Your task to perform on an android device: Open location settings Image 0: 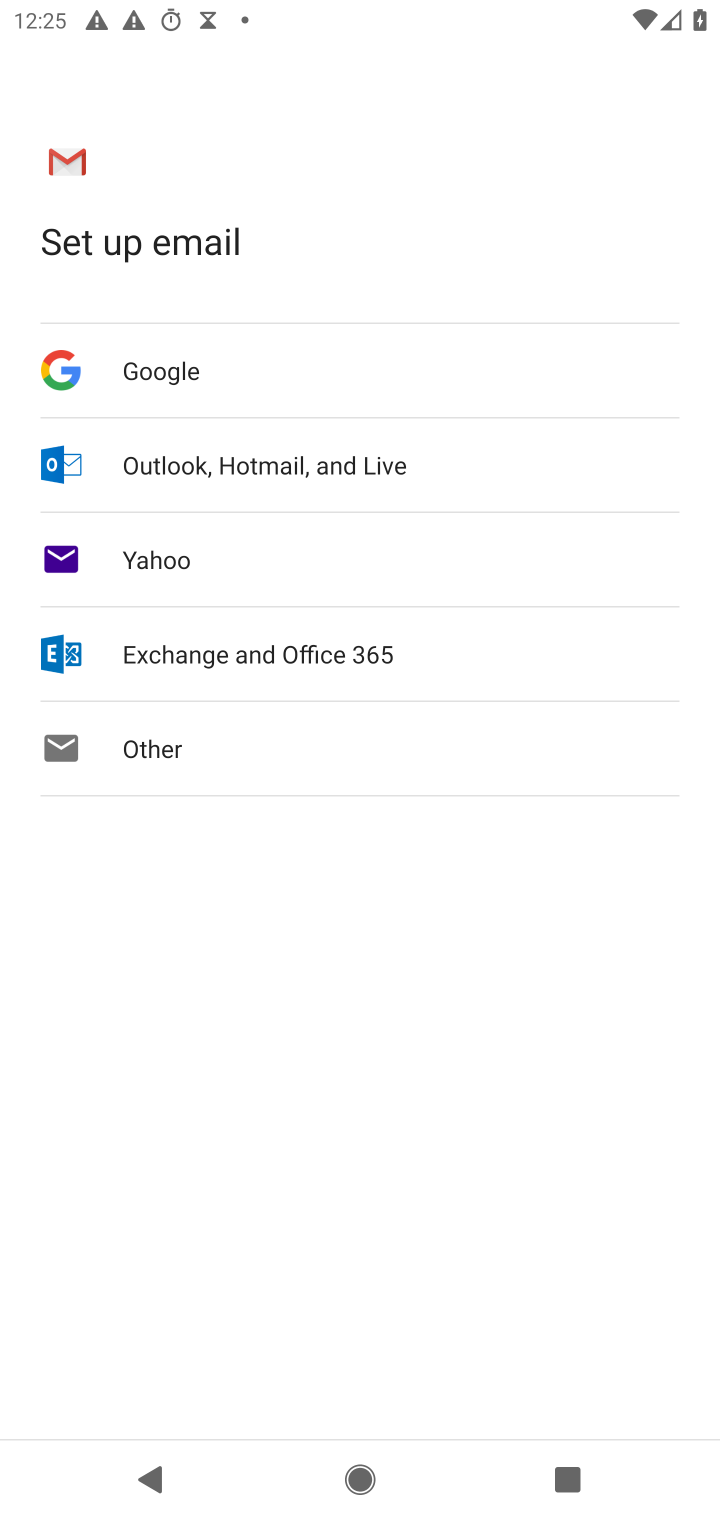
Step 0: press home button
Your task to perform on an android device: Open location settings Image 1: 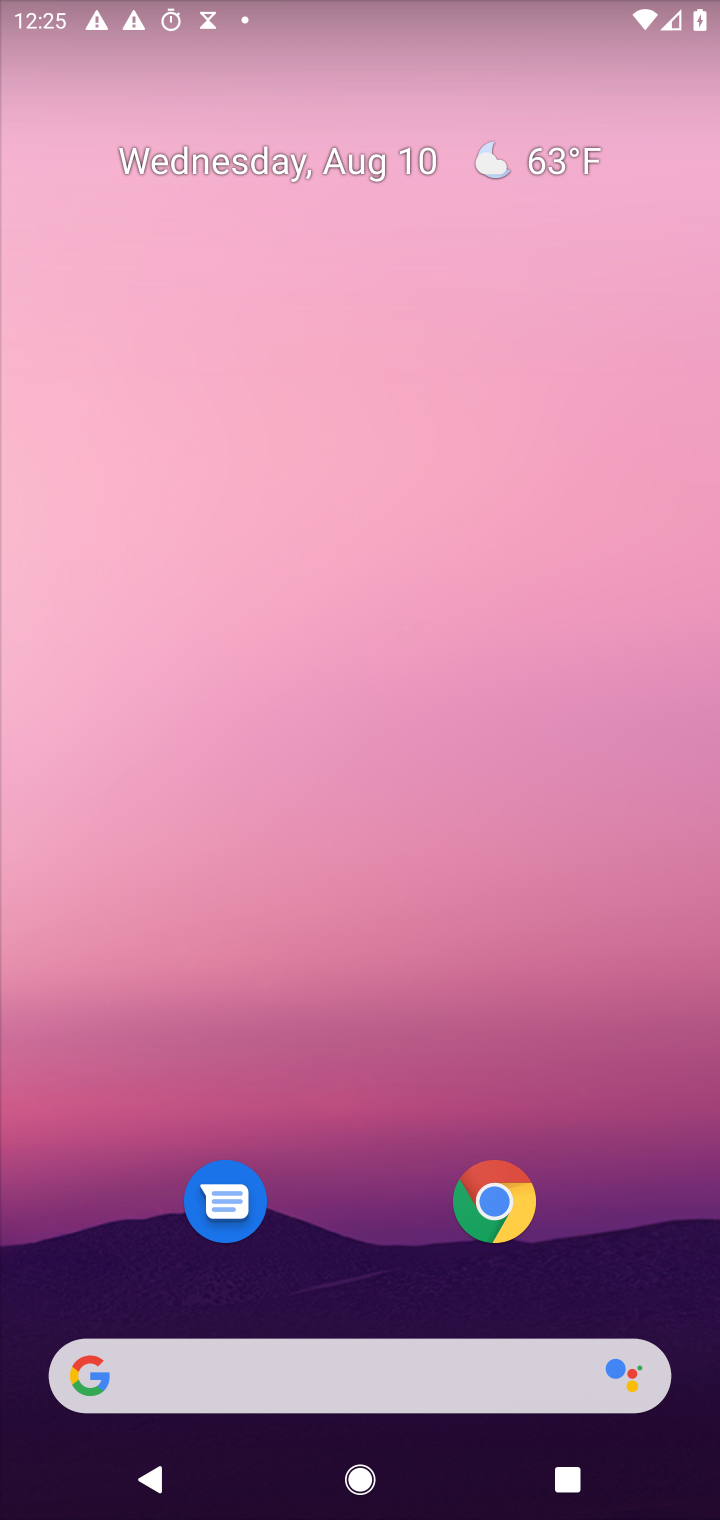
Step 1: drag from (367, 815) to (348, 209)
Your task to perform on an android device: Open location settings Image 2: 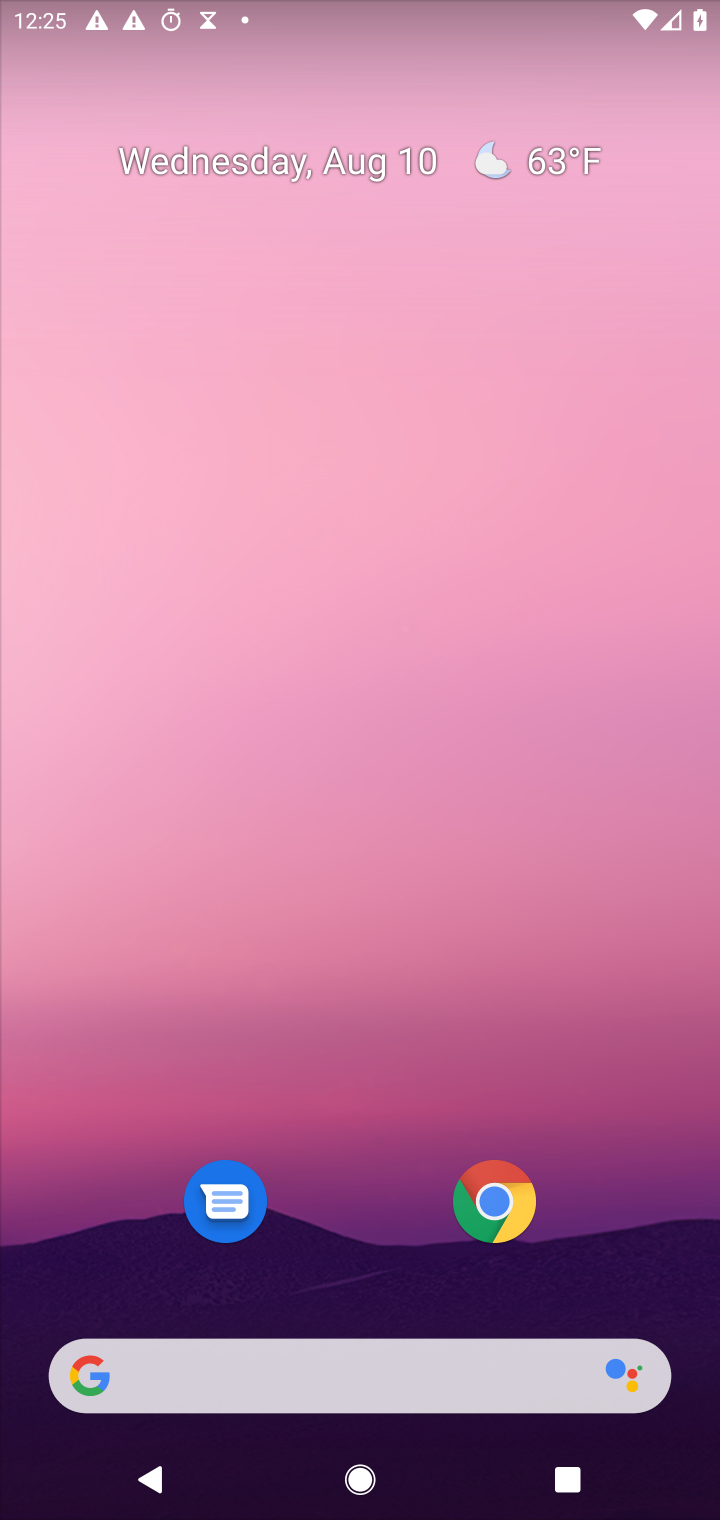
Step 2: drag from (362, 1276) to (354, 19)
Your task to perform on an android device: Open location settings Image 3: 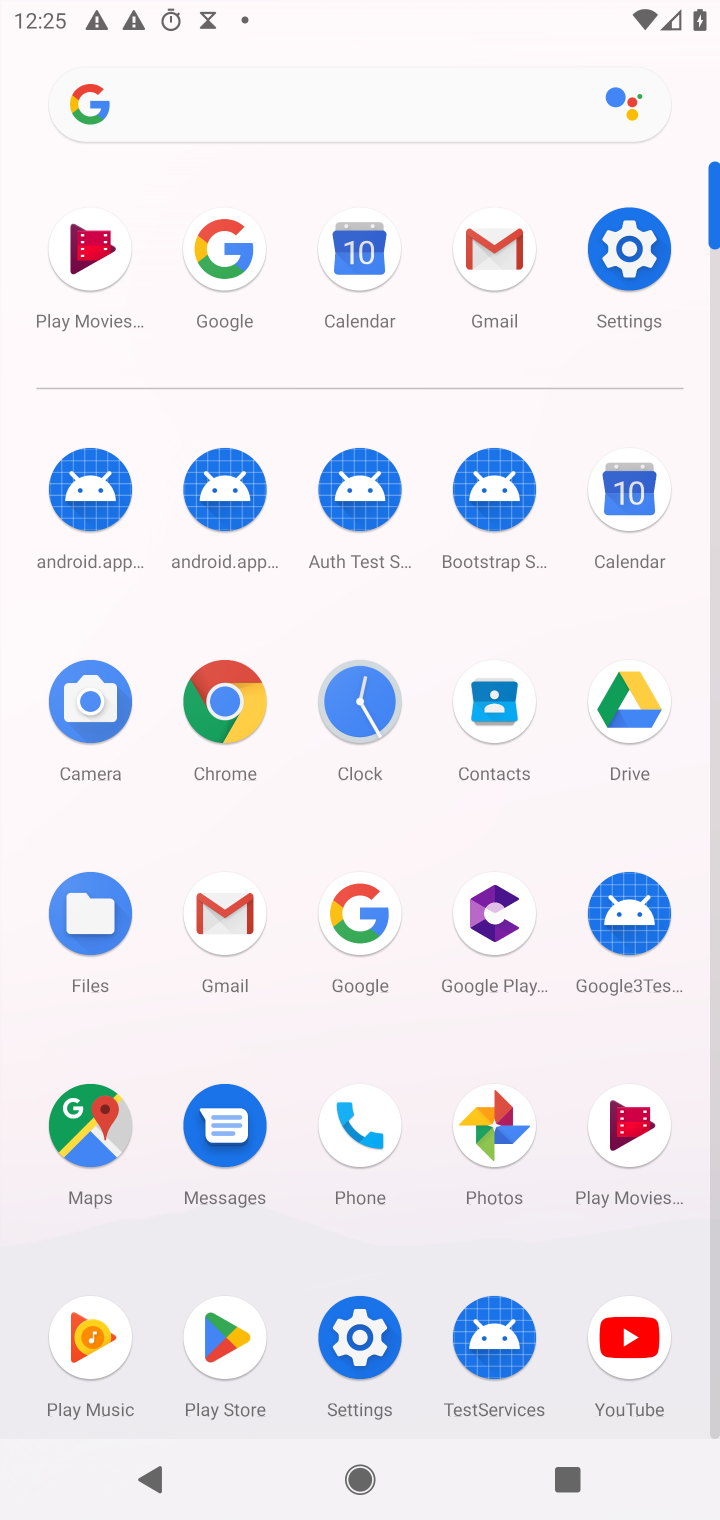
Step 3: click (621, 262)
Your task to perform on an android device: Open location settings Image 4: 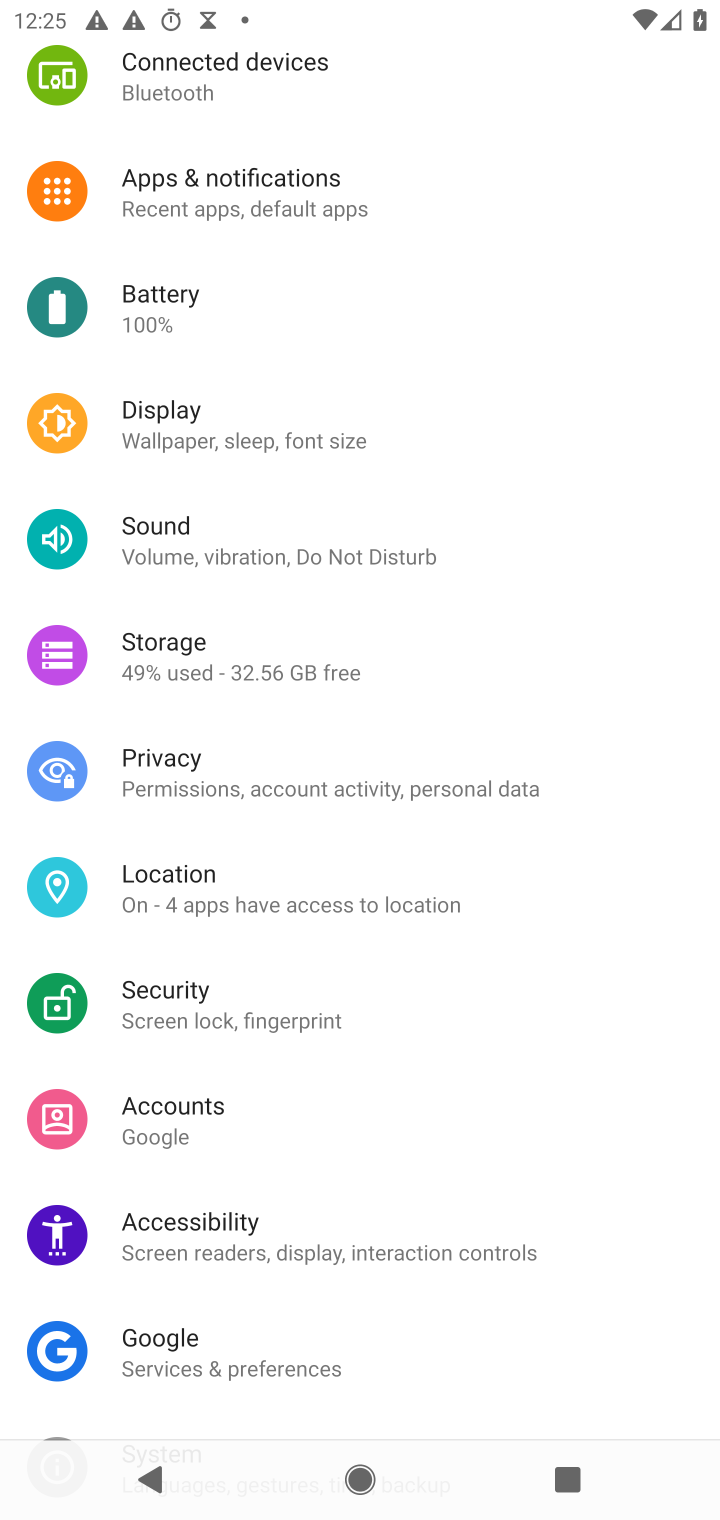
Step 4: click (212, 882)
Your task to perform on an android device: Open location settings Image 5: 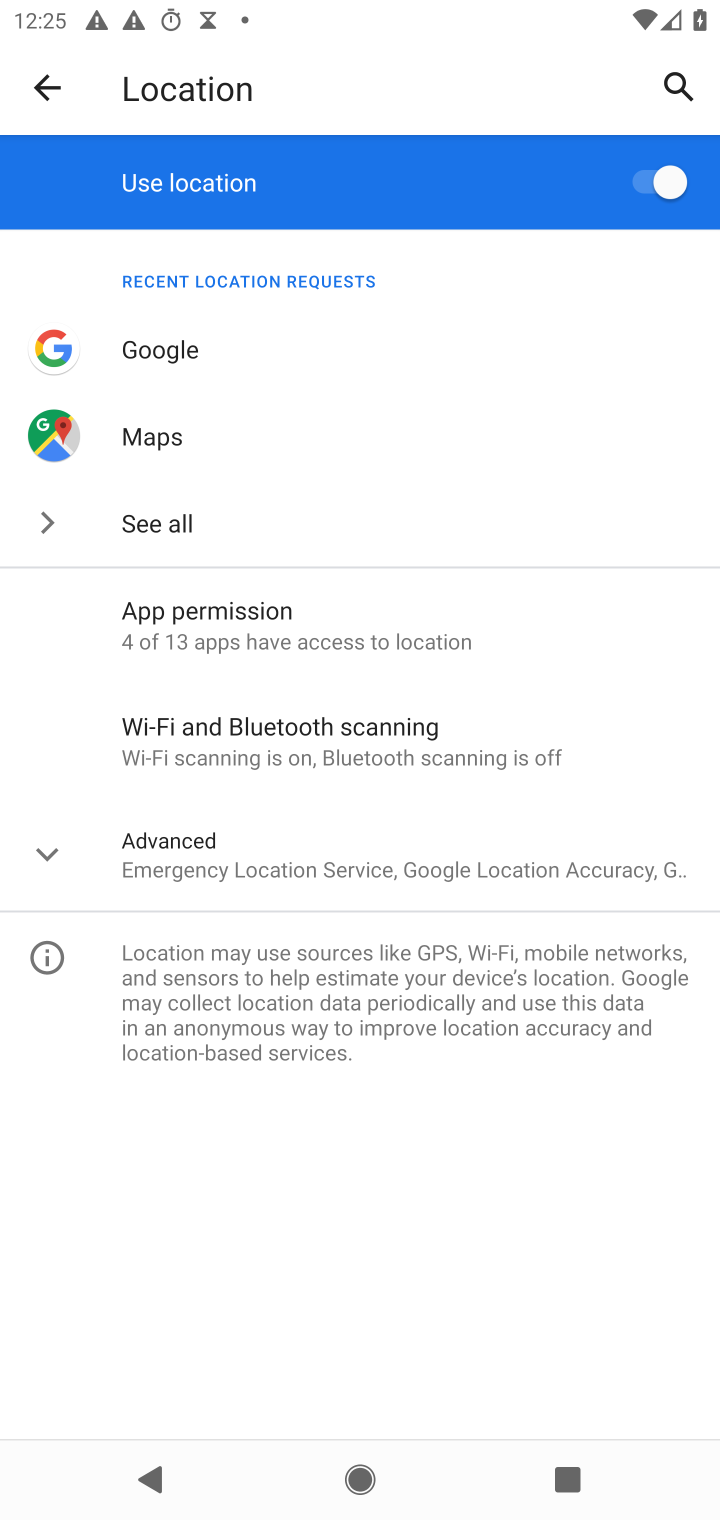
Step 5: task complete